Your task to perform on an android device: Go to Google Image 0: 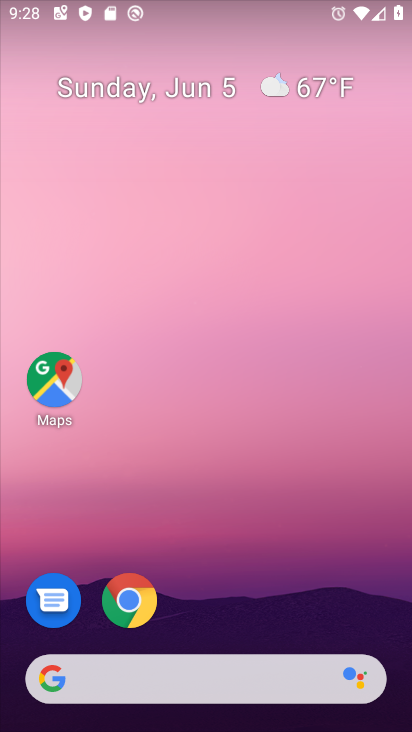
Step 0: drag from (349, 607) to (313, 112)
Your task to perform on an android device: Go to Google Image 1: 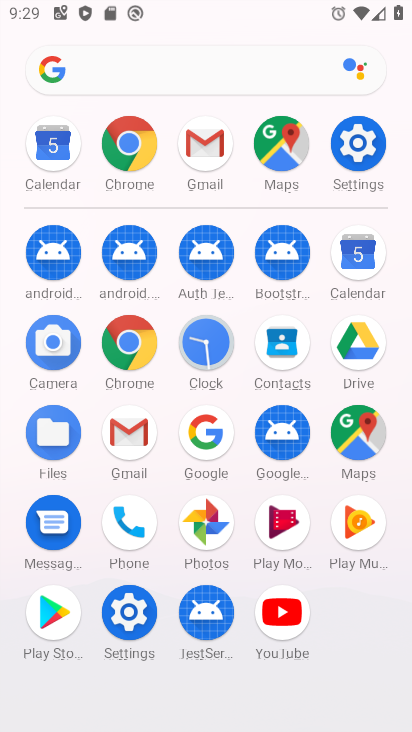
Step 1: click (196, 431)
Your task to perform on an android device: Go to Google Image 2: 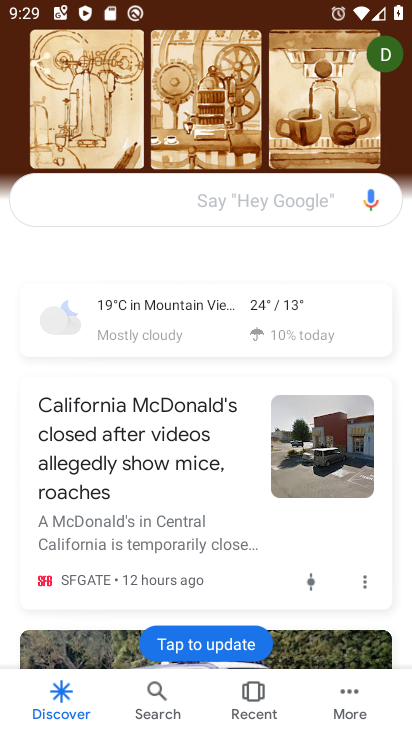
Step 2: task complete